Your task to perform on an android device: Open network settings Image 0: 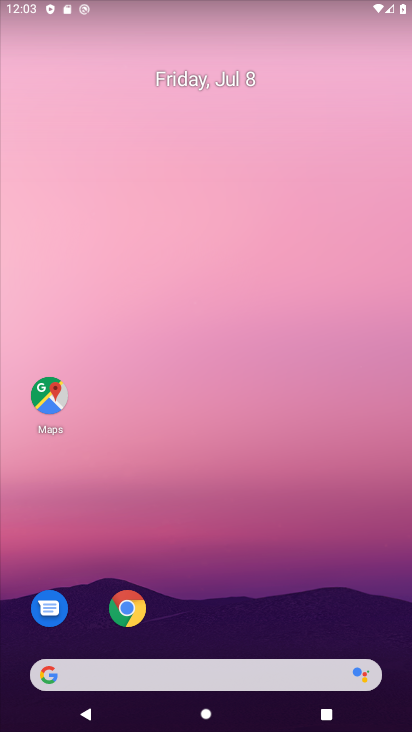
Step 0: drag from (319, 591) to (349, 33)
Your task to perform on an android device: Open network settings Image 1: 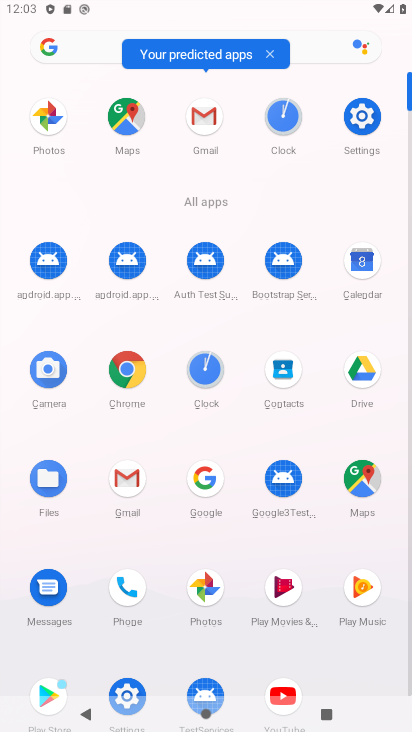
Step 1: click (364, 124)
Your task to perform on an android device: Open network settings Image 2: 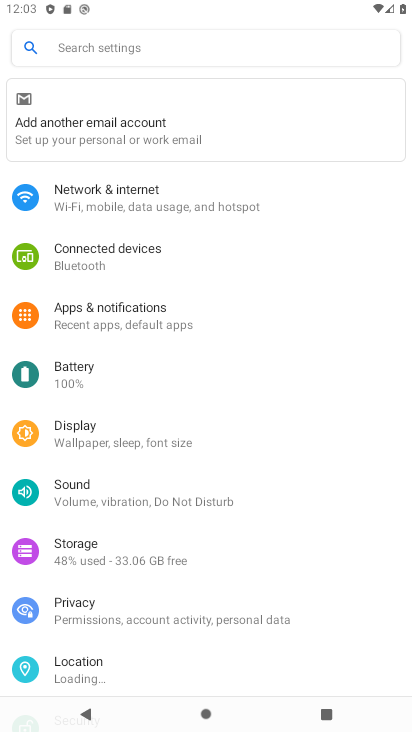
Step 2: click (176, 201)
Your task to perform on an android device: Open network settings Image 3: 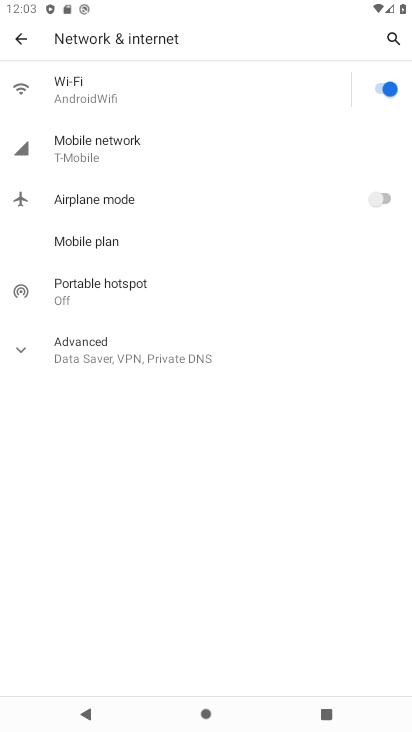
Step 3: task complete